Your task to perform on an android device: Show me the alarms in the clock app Image 0: 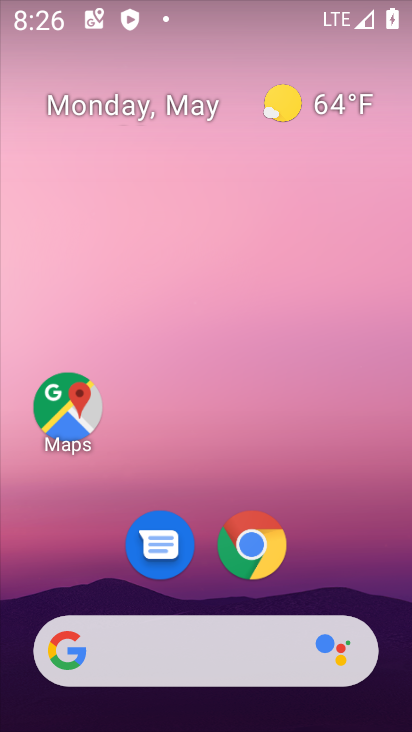
Step 0: drag from (219, 651) to (226, 223)
Your task to perform on an android device: Show me the alarms in the clock app Image 1: 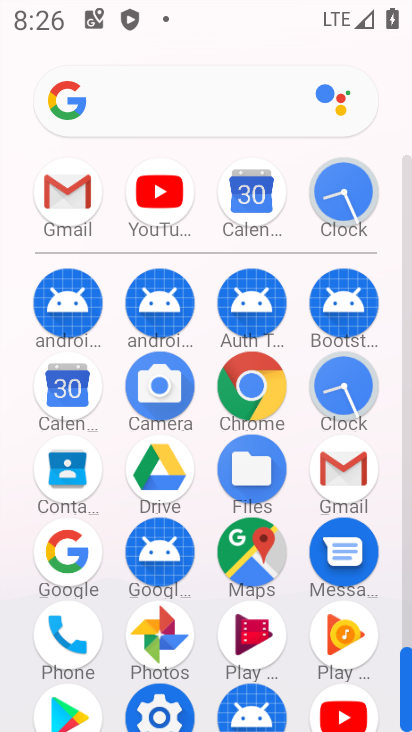
Step 1: click (358, 377)
Your task to perform on an android device: Show me the alarms in the clock app Image 2: 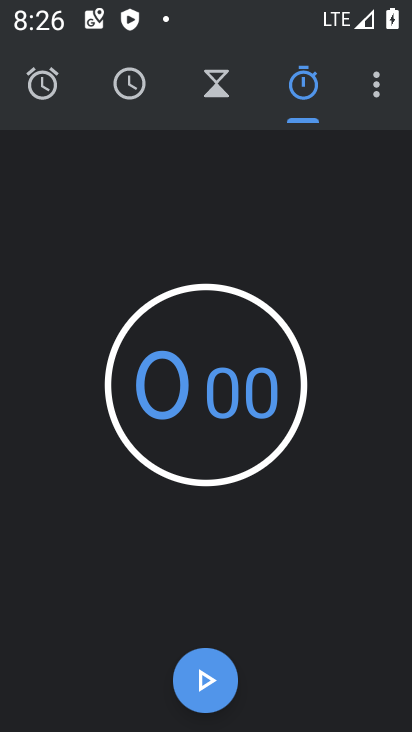
Step 2: click (29, 104)
Your task to perform on an android device: Show me the alarms in the clock app Image 3: 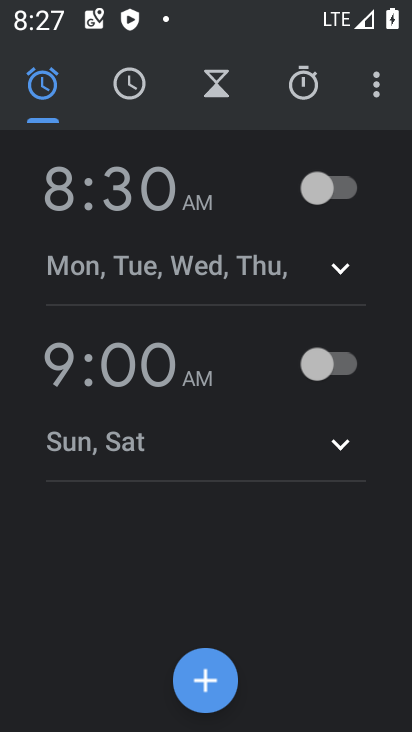
Step 3: task complete